Your task to perform on an android device: turn on translation in the chrome app Image 0: 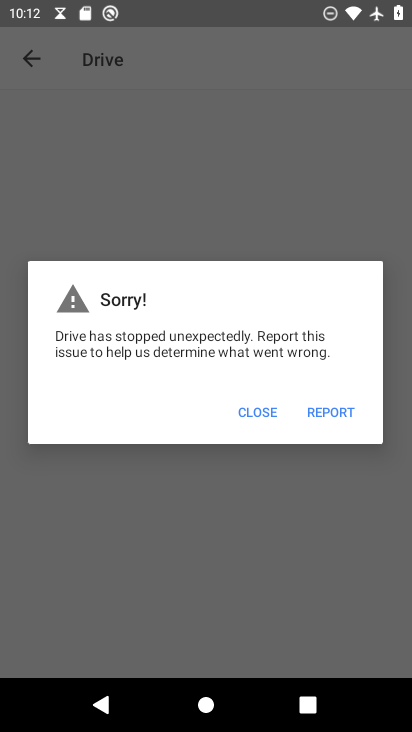
Step 0: press home button
Your task to perform on an android device: turn on translation in the chrome app Image 1: 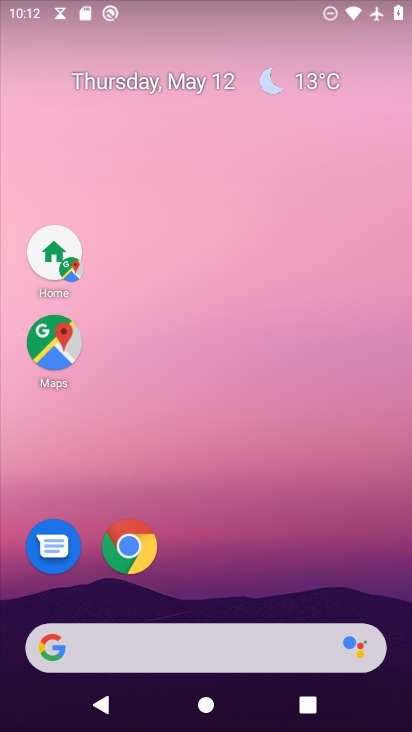
Step 1: click (129, 547)
Your task to perform on an android device: turn on translation in the chrome app Image 2: 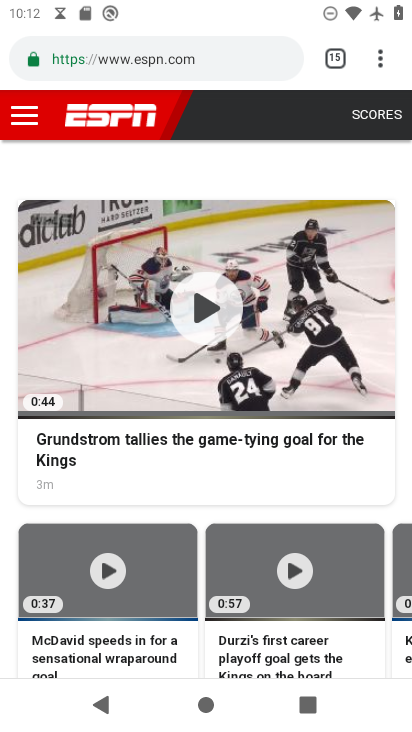
Step 2: drag from (381, 62) to (225, 580)
Your task to perform on an android device: turn on translation in the chrome app Image 3: 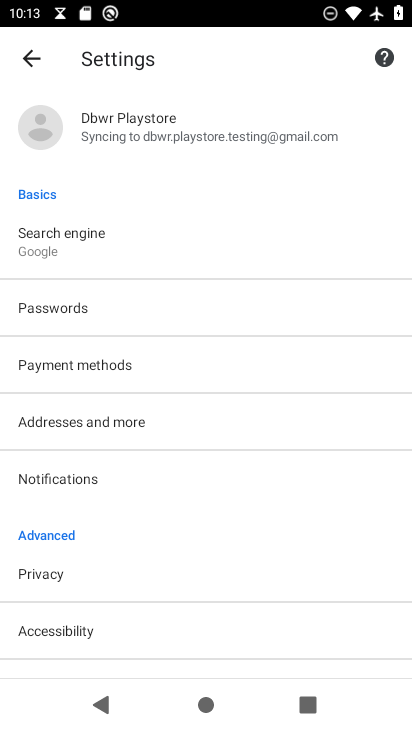
Step 3: drag from (164, 567) to (279, 294)
Your task to perform on an android device: turn on translation in the chrome app Image 4: 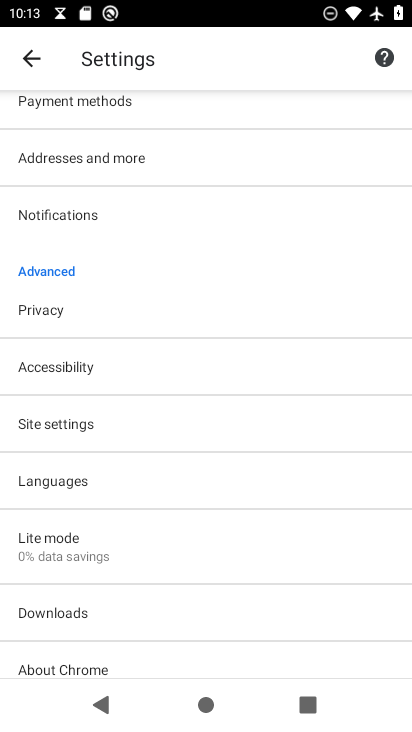
Step 4: click (71, 483)
Your task to perform on an android device: turn on translation in the chrome app Image 5: 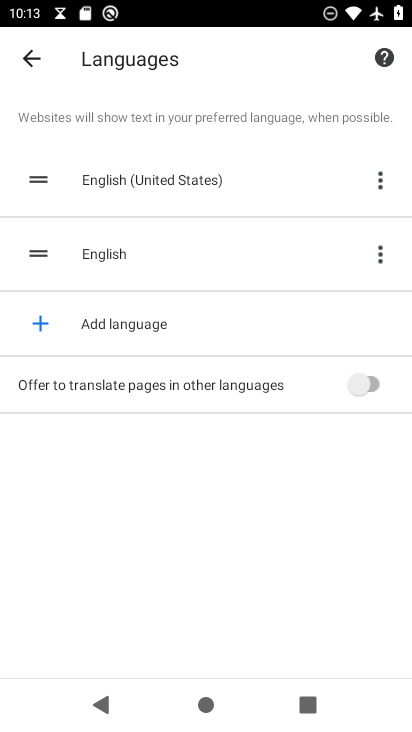
Step 5: click (374, 382)
Your task to perform on an android device: turn on translation in the chrome app Image 6: 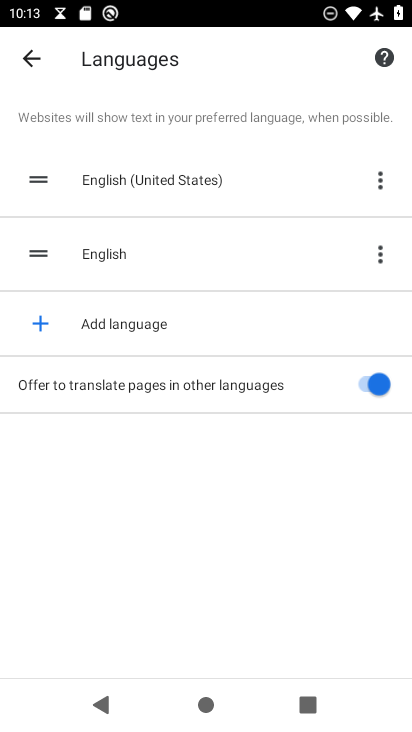
Step 6: task complete